Your task to perform on an android device: Open Android settings Image 0: 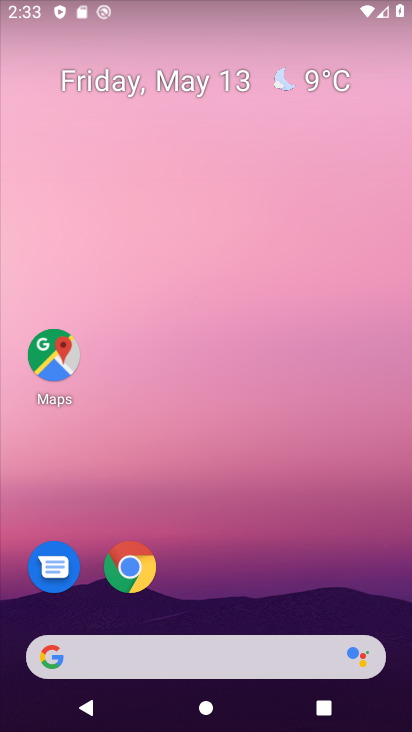
Step 0: drag from (298, 622) to (337, 13)
Your task to perform on an android device: Open Android settings Image 1: 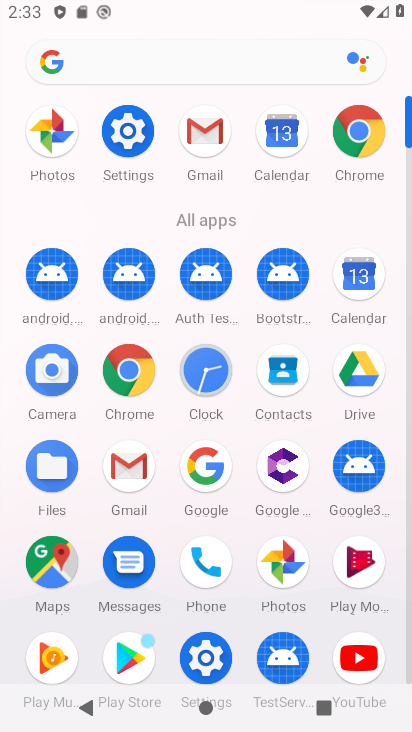
Step 1: click (119, 136)
Your task to perform on an android device: Open Android settings Image 2: 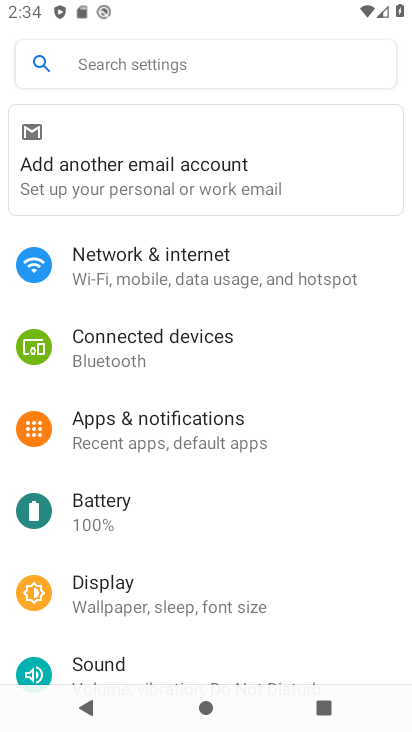
Step 2: task complete